Your task to perform on an android device: Add "acer predator" to the cart on target Image 0: 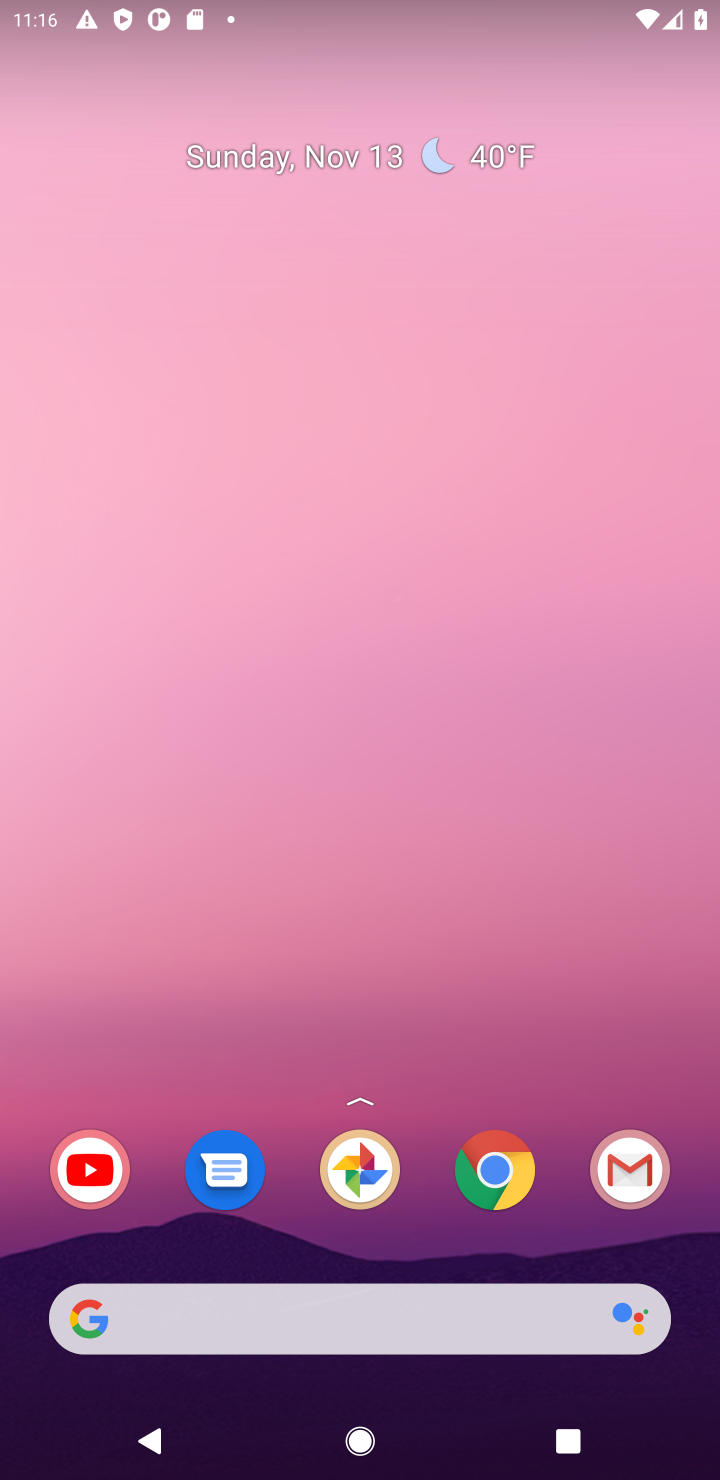
Step 0: drag from (392, 1148) to (97, 15)
Your task to perform on an android device: Add "acer predator" to the cart on target Image 1: 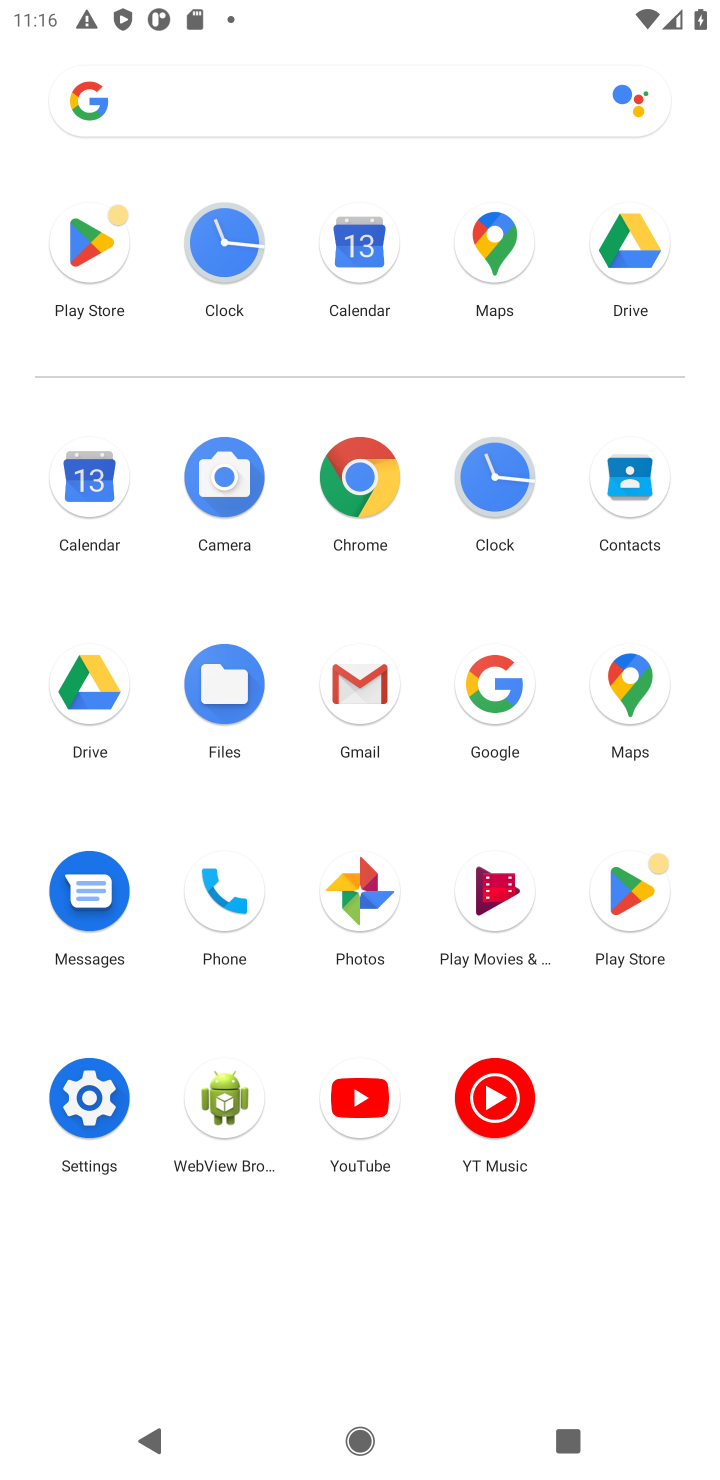
Step 1: click (353, 485)
Your task to perform on an android device: Add "acer predator" to the cart on target Image 2: 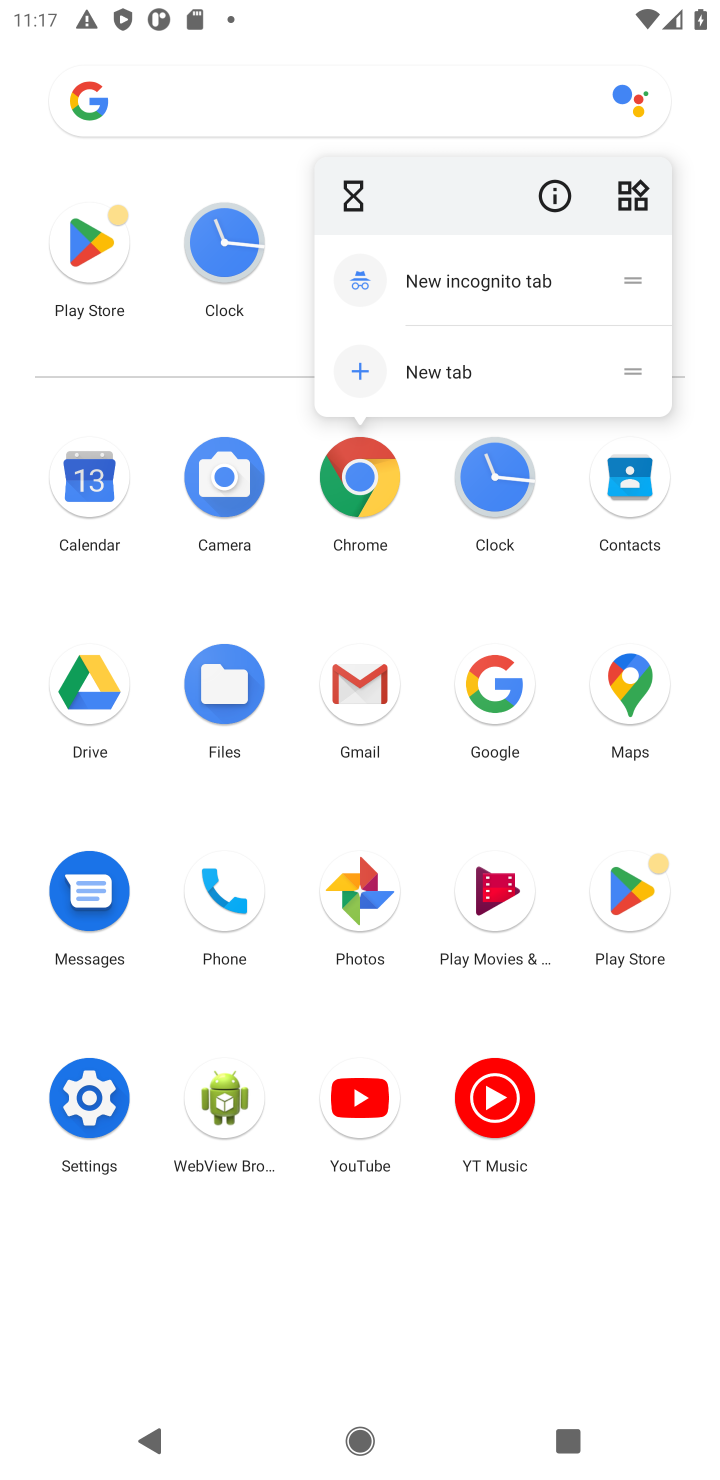
Step 2: click (363, 492)
Your task to perform on an android device: Add "acer predator" to the cart on target Image 3: 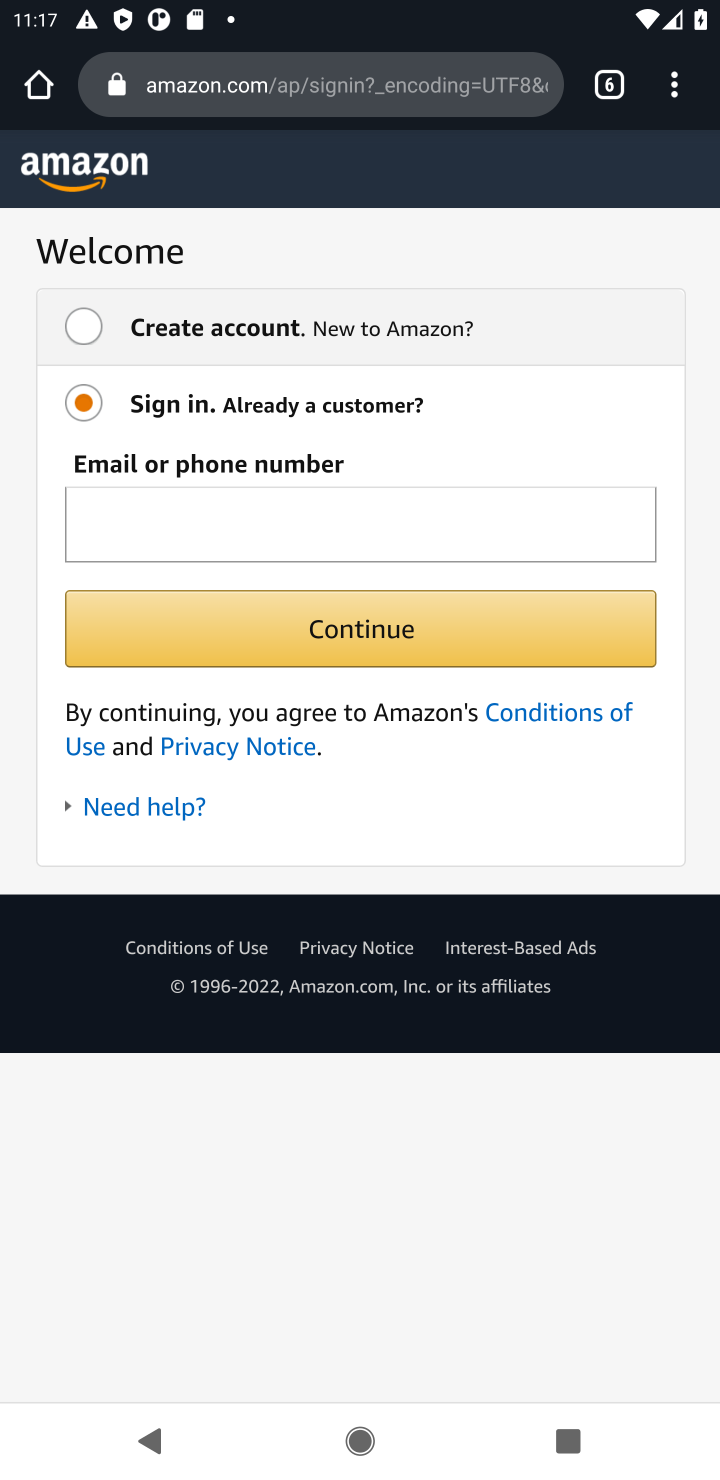
Step 3: click (237, 81)
Your task to perform on an android device: Add "acer predator" to the cart on target Image 4: 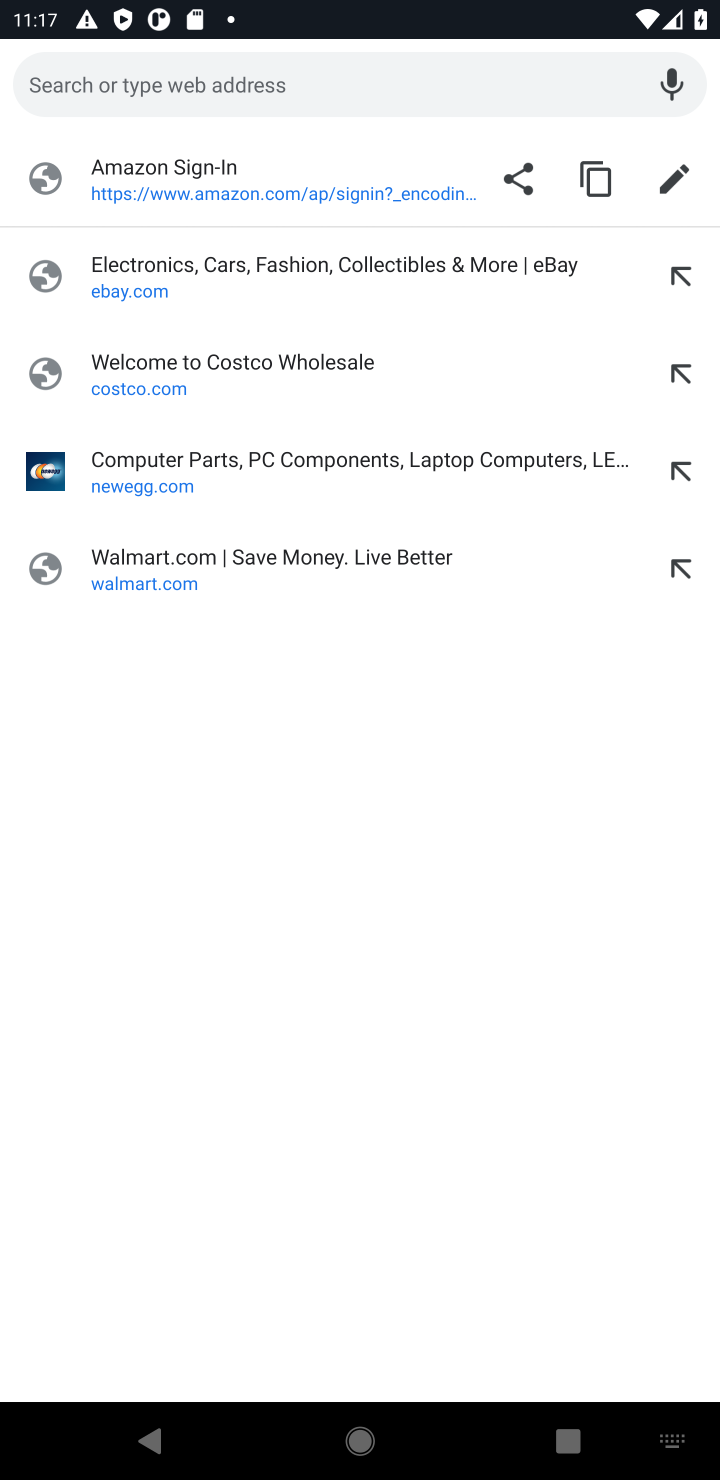
Step 4: type "target"
Your task to perform on an android device: Add "acer predator" to the cart on target Image 5: 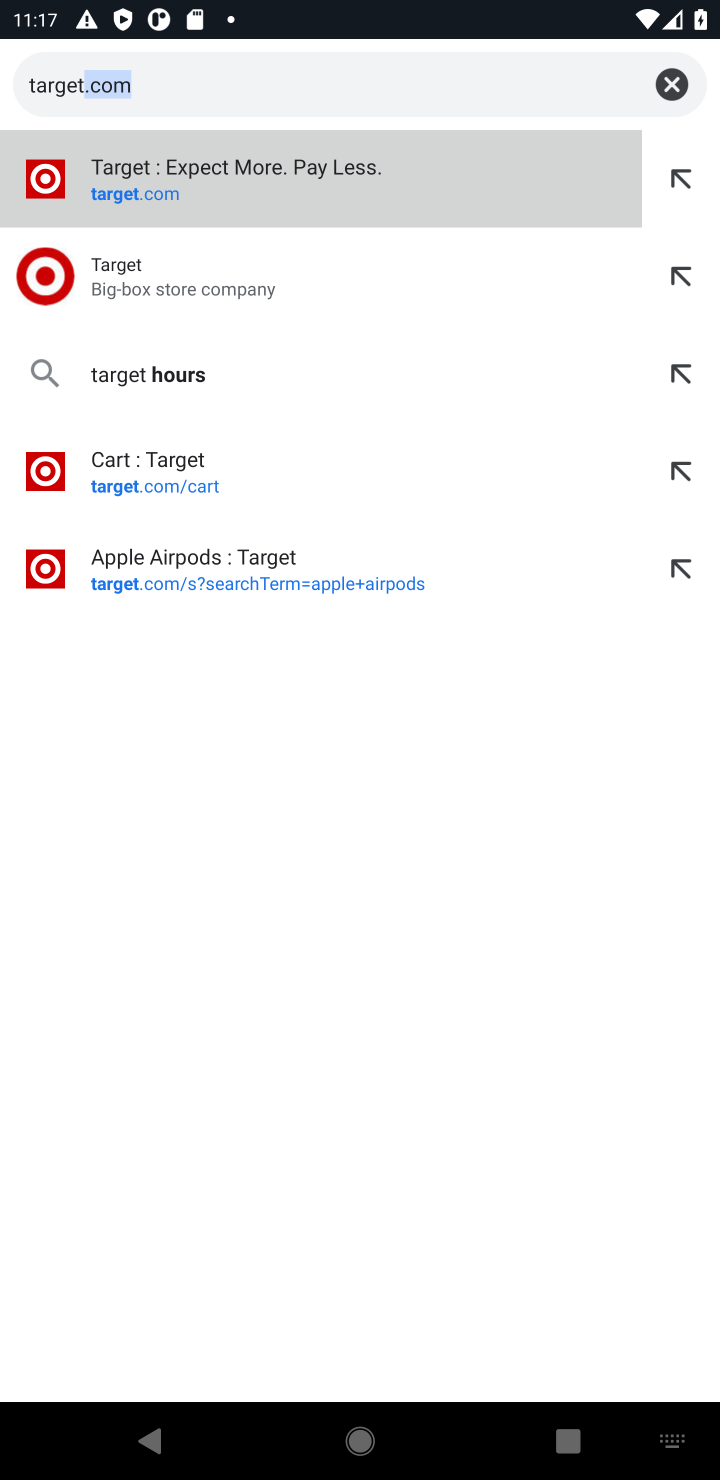
Step 5: press enter
Your task to perform on an android device: Add "acer predator" to the cart on target Image 6: 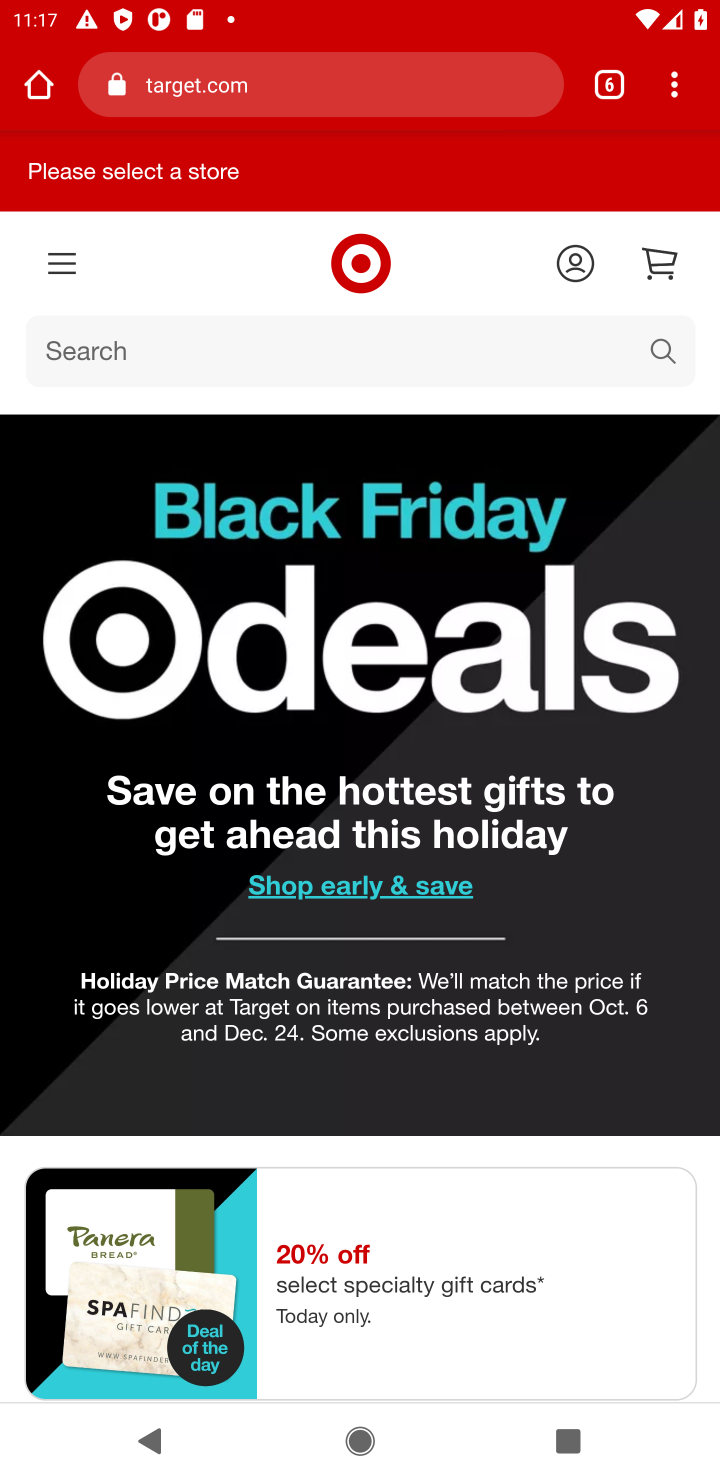
Step 6: click (134, 367)
Your task to perform on an android device: Add "acer predator" to the cart on target Image 7: 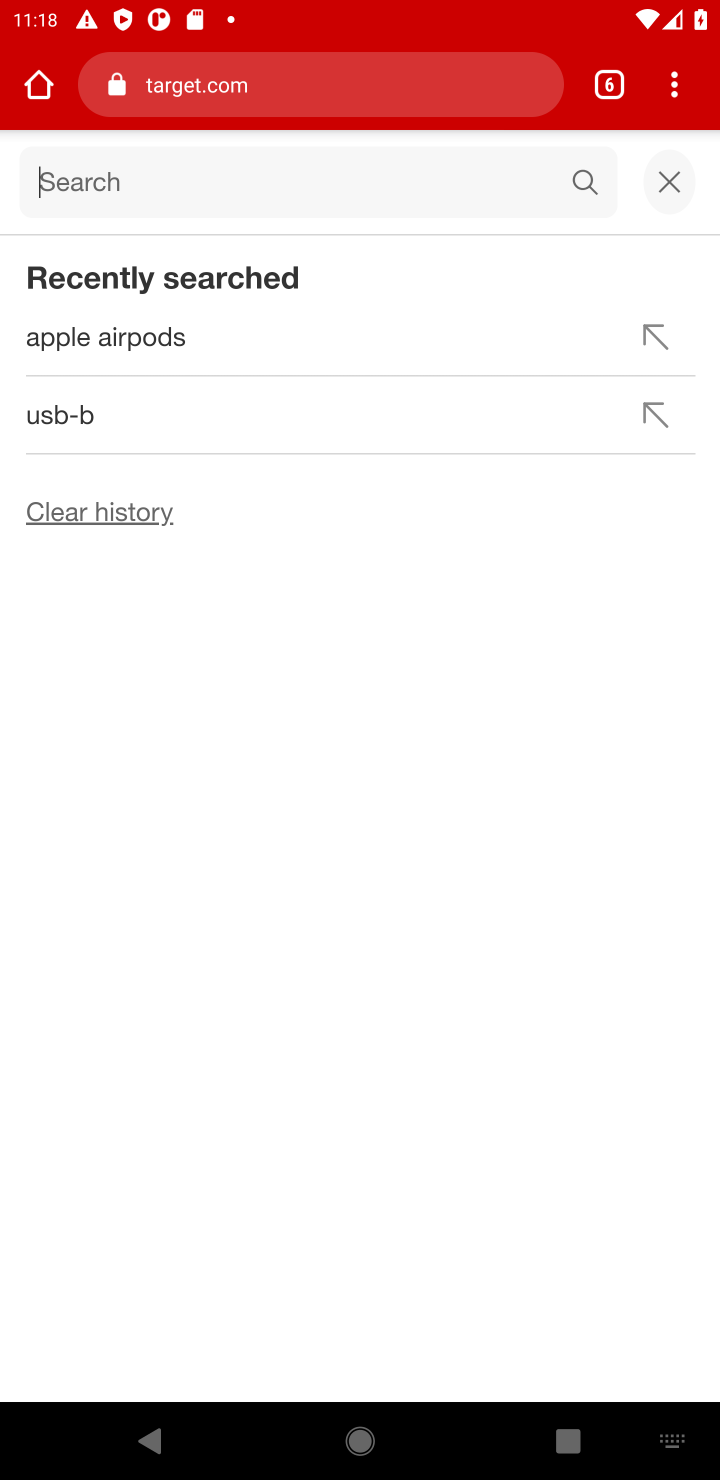
Step 7: type "acer predator"
Your task to perform on an android device: Add "acer predator" to the cart on target Image 8: 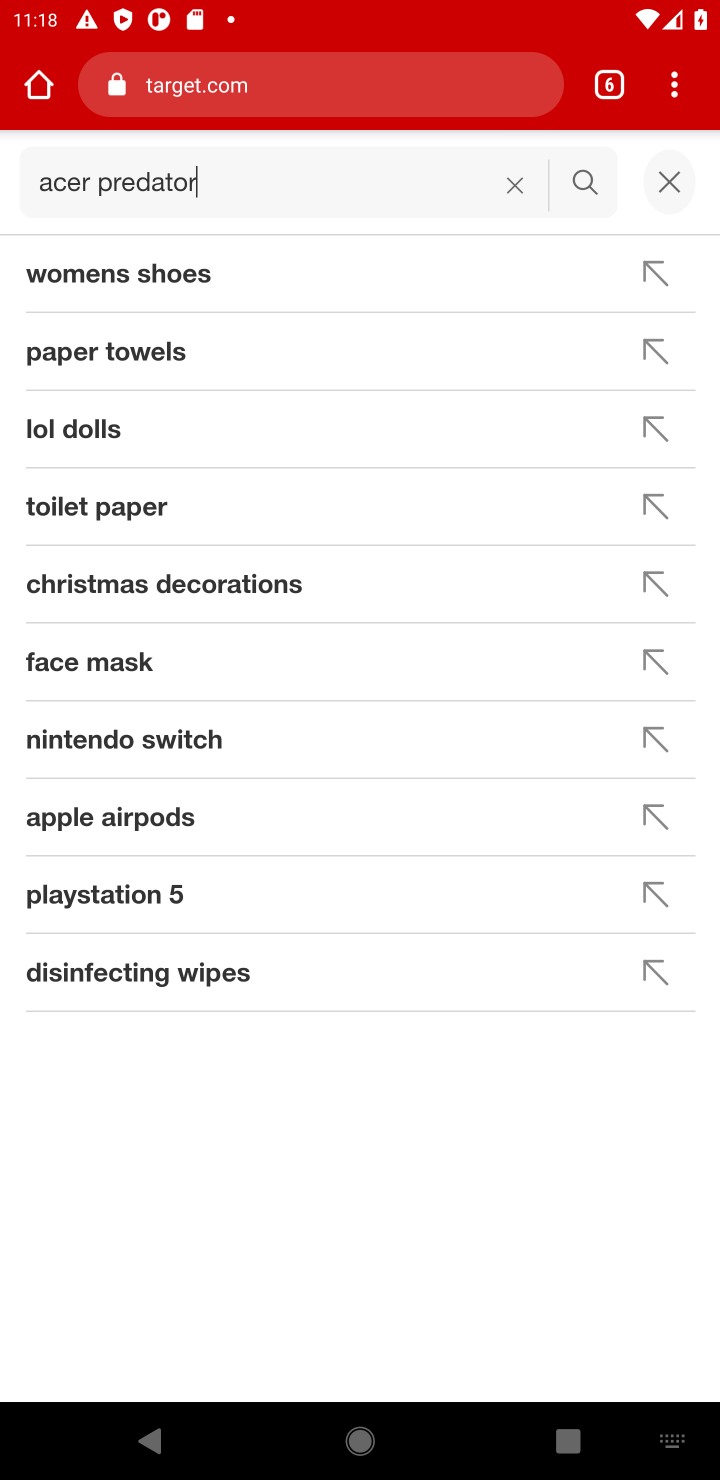
Step 8: press enter
Your task to perform on an android device: Add "acer predator" to the cart on target Image 9: 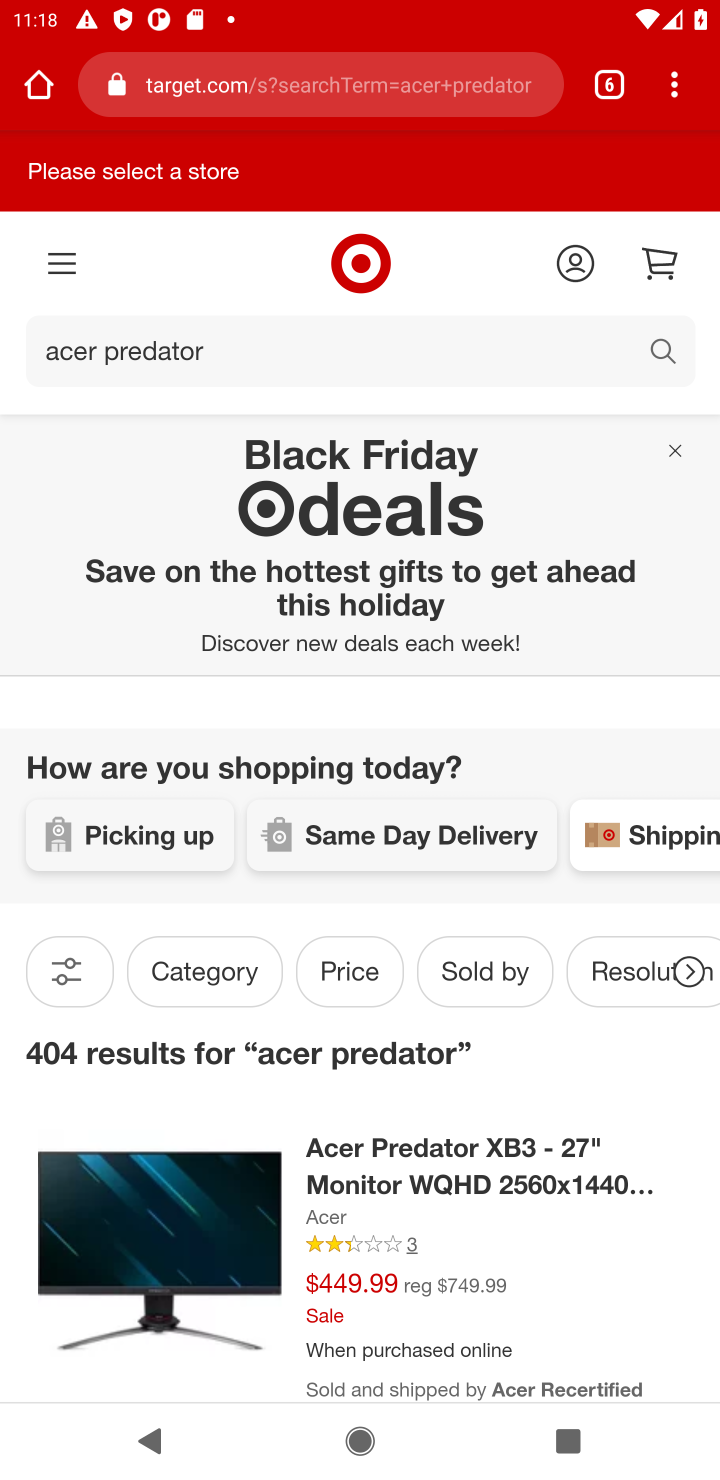
Step 9: drag from (460, 983) to (368, 63)
Your task to perform on an android device: Add "acer predator" to the cart on target Image 10: 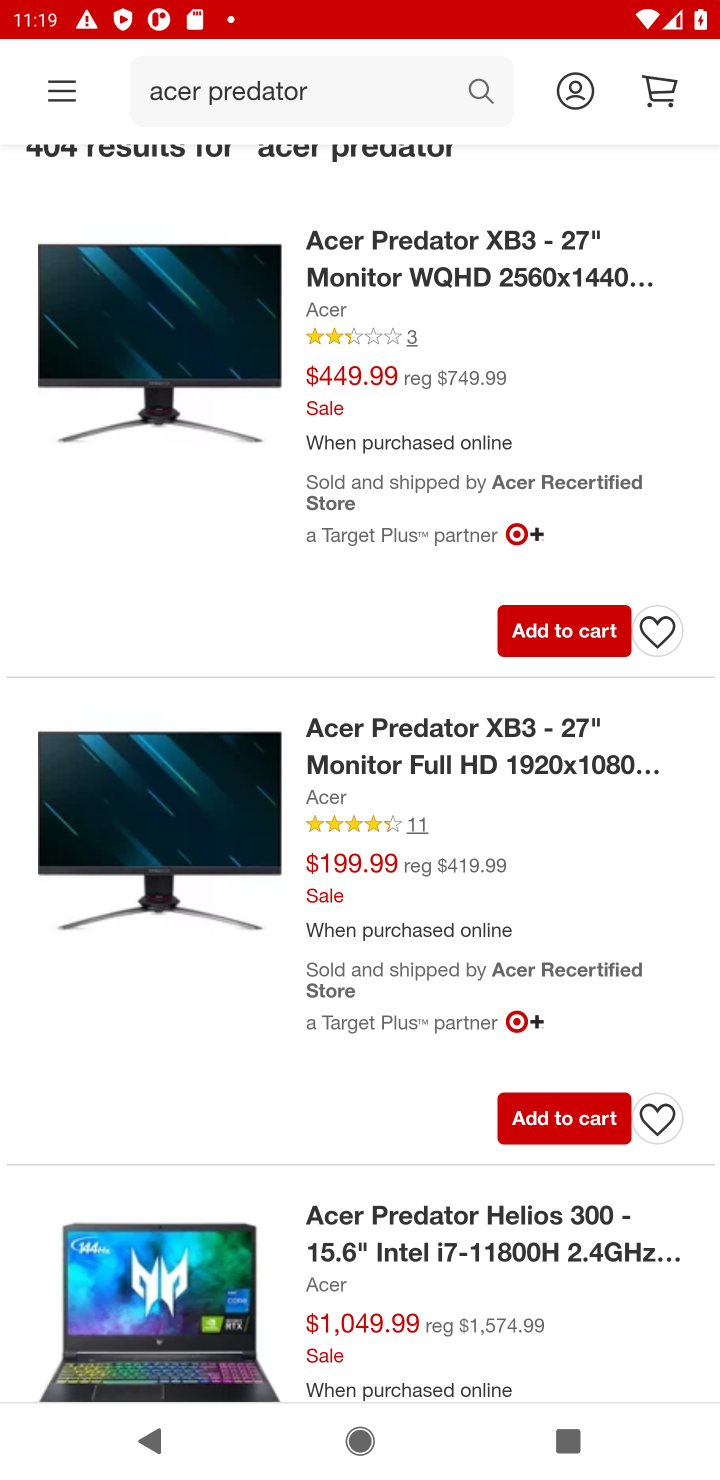
Step 10: click (549, 650)
Your task to perform on an android device: Add "acer predator" to the cart on target Image 11: 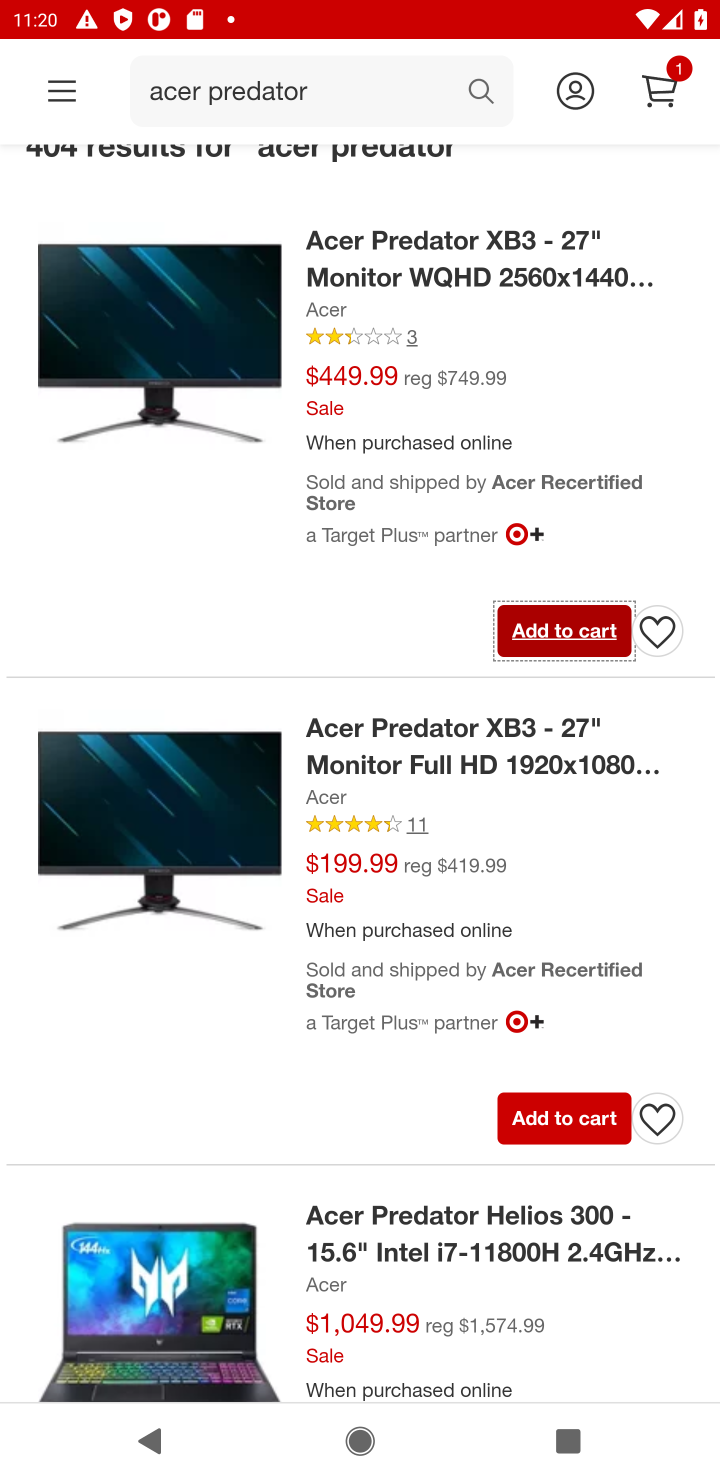
Step 11: task complete